Your task to perform on an android device: toggle translation in the chrome app Image 0: 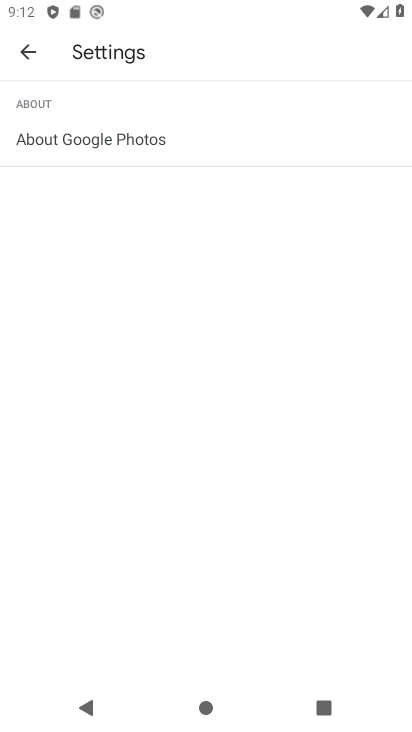
Step 0: press home button
Your task to perform on an android device: toggle translation in the chrome app Image 1: 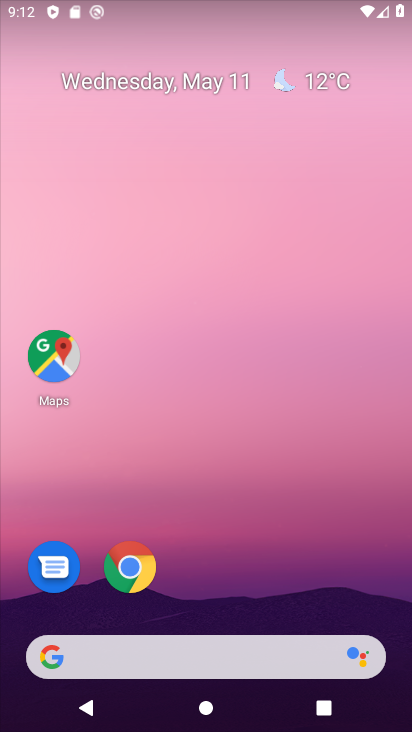
Step 1: click (129, 557)
Your task to perform on an android device: toggle translation in the chrome app Image 2: 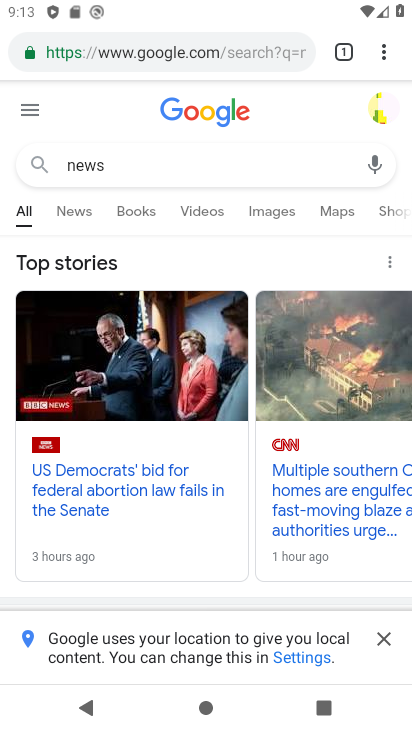
Step 2: click (381, 54)
Your task to perform on an android device: toggle translation in the chrome app Image 3: 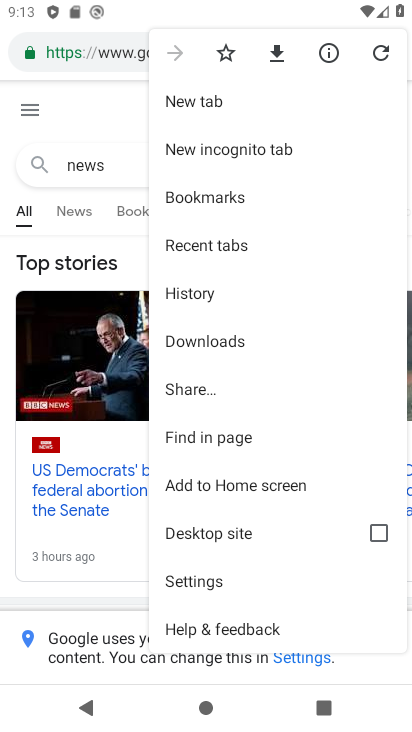
Step 3: drag from (199, 563) to (222, 266)
Your task to perform on an android device: toggle translation in the chrome app Image 4: 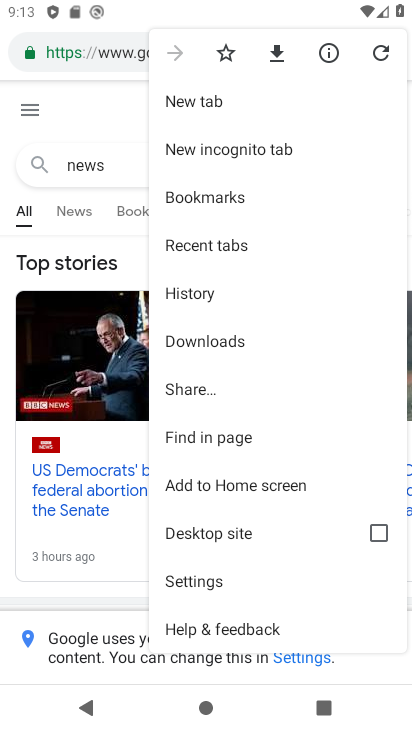
Step 4: click (210, 583)
Your task to perform on an android device: toggle translation in the chrome app Image 5: 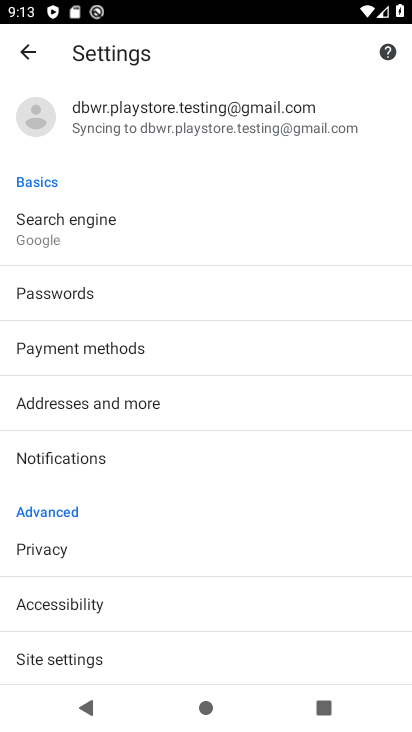
Step 5: drag from (118, 587) to (128, 354)
Your task to perform on an android device: toggle translation in the chrome app Image 6: 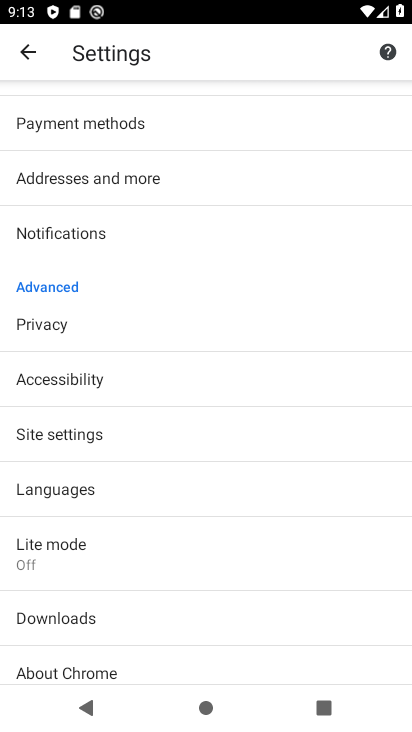
Step 6: click (91, 495)
Your task to perform on an android device: toggle translation in the chrome app Image 7: 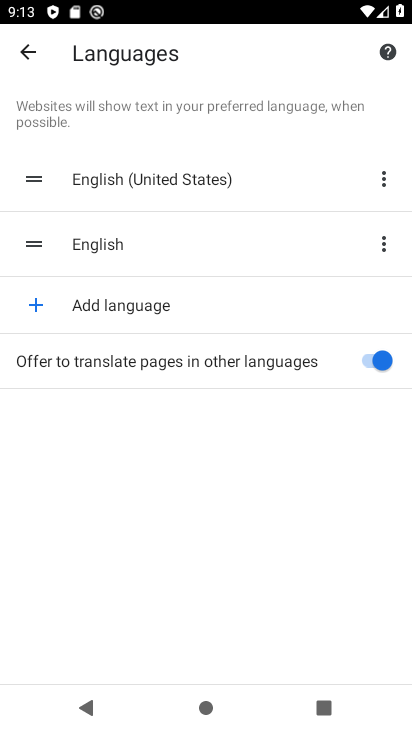
Step 7: click (375, 364)
Your task to perform on an android device: toggle translation in the chrome app Image 8: 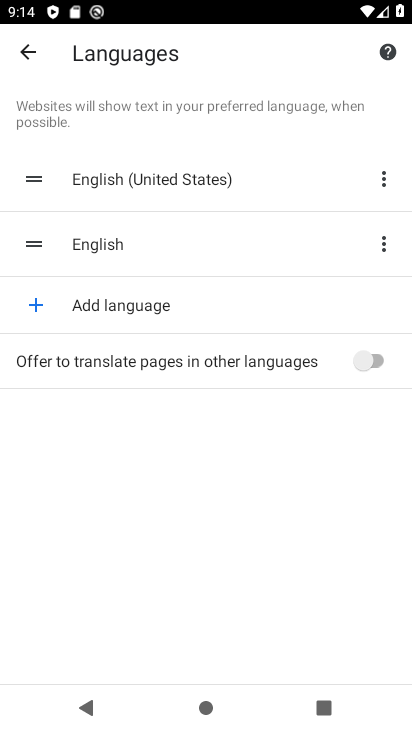
Step 8: click (373, 362)
Your task to perform on an android device: toggle translation in the chrome app Image 9: 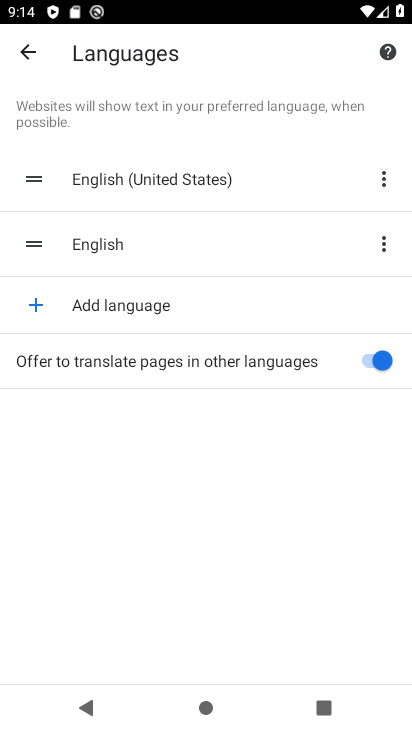
Step 9: task complete